Your task to perform on an android device: toggle wifi Image 0: 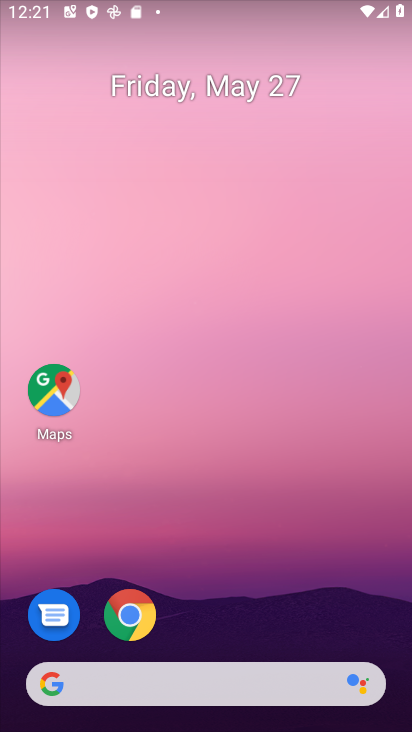
Step 0: drag from (230, 668) to (234, 124)
Your task to perform on an android device: toggle wifi Image 1: 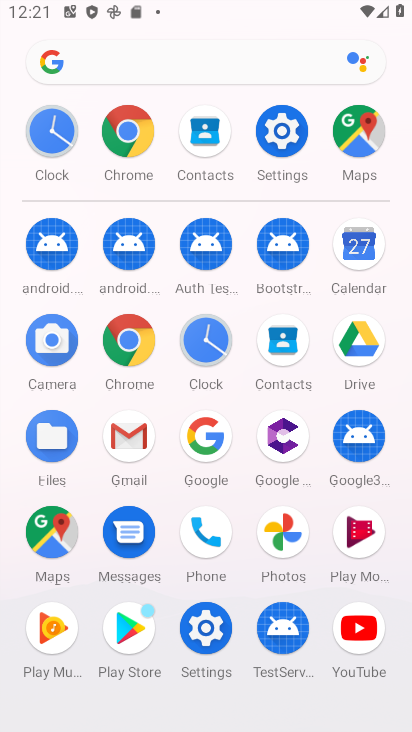
Step 1: click (288, 142)
Your task to perform on an android device: toggle wifi Image 2: 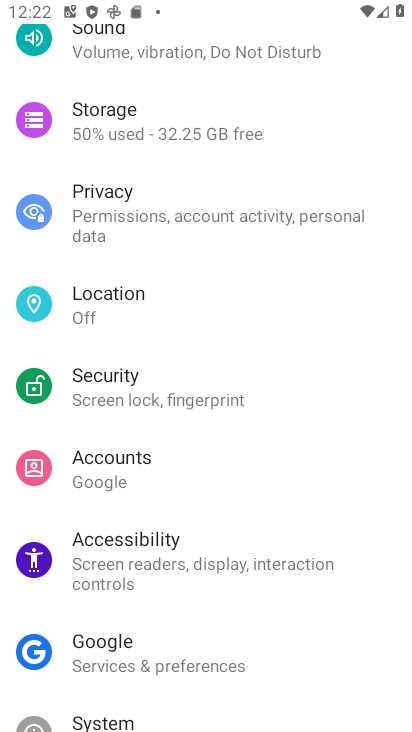
Step 2: drag from (278, 297) to (221, 731)
Your task to perform on an android device: toggle wifi Image 3: 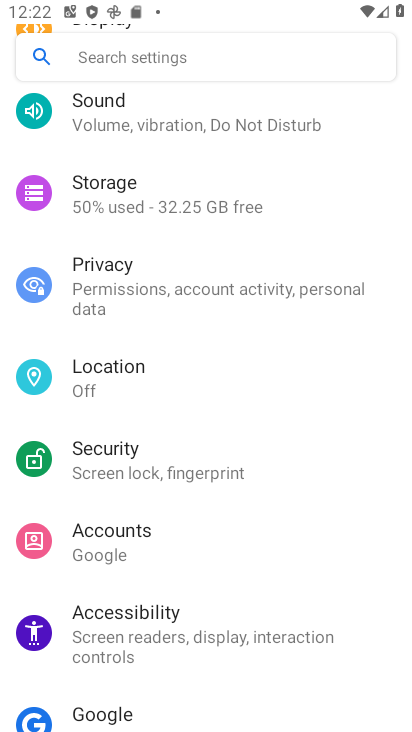
Step 3: drag from (161, 158) to (166, 725)
Your task to perform on an android device: toggle wifi Image 4: 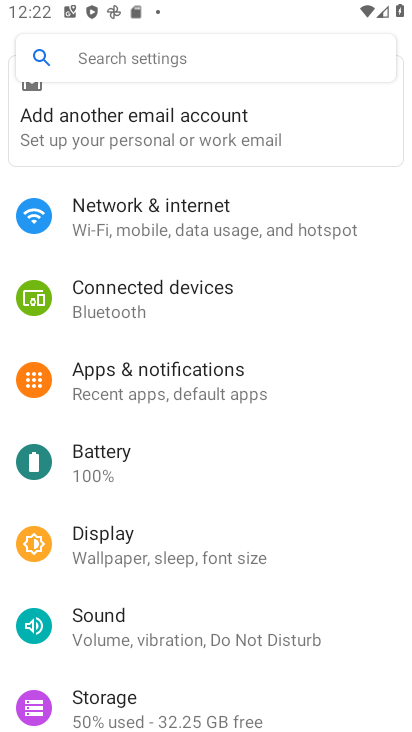
Step 4: click (165, 230)
Your task to perform on an android device: toggle wifi Image 5: 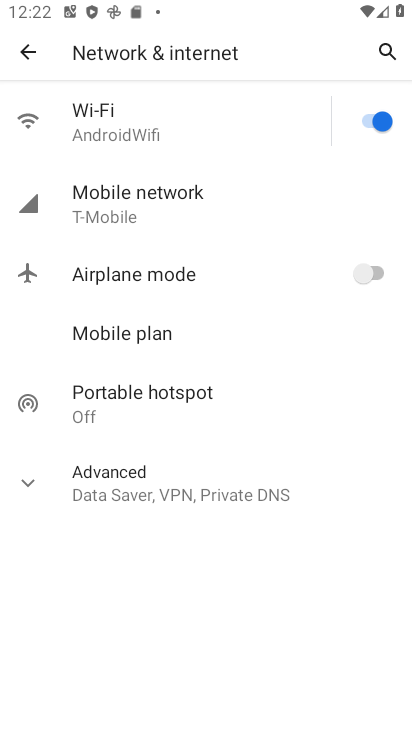
Step 5: click (375, 122)
Your task to perform on an android device: toggle wifi Image 6: 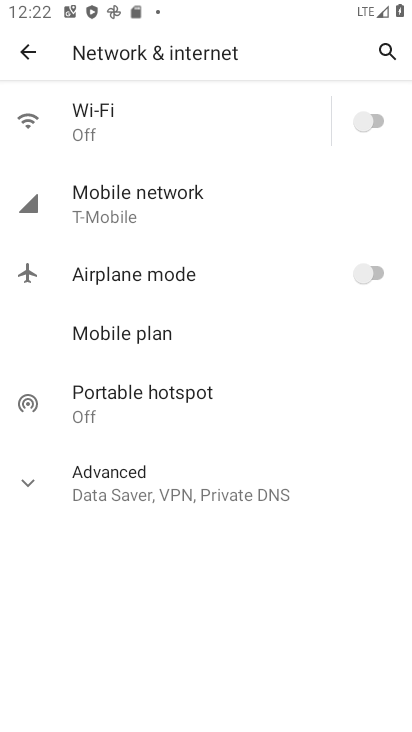
Step 6: task complete